Your task to perform on an android device: Go to Reddit.com Image 0: 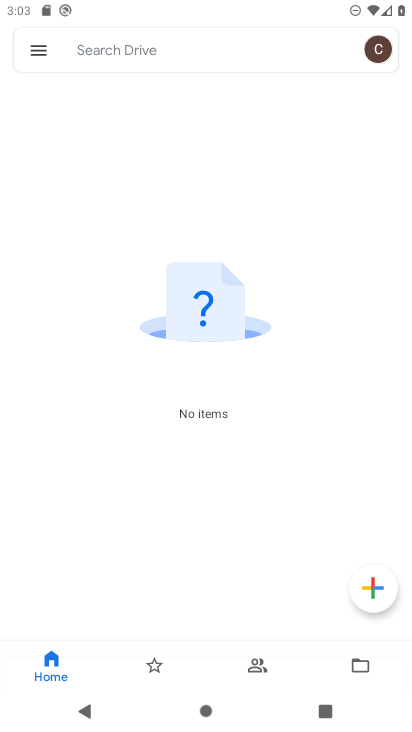
Step 0: press home button
Your task to perform on an android device: Go to Reddit.com Image 1: 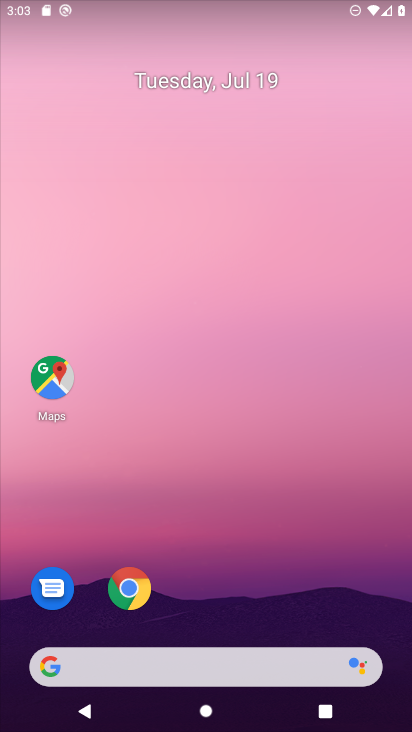
Step 1: click (130, 584)
Your task to perform on an android device: Go to Reddit.com Image 2: 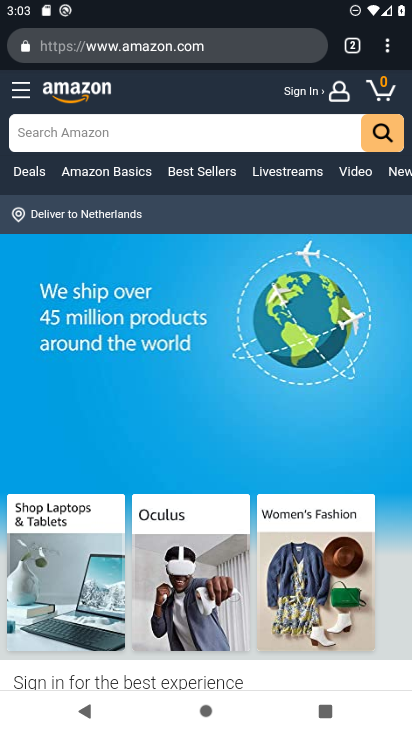
Step 2: click (162, 44)
Your task to perform on an android device: Go to Reddit.com Image 3: 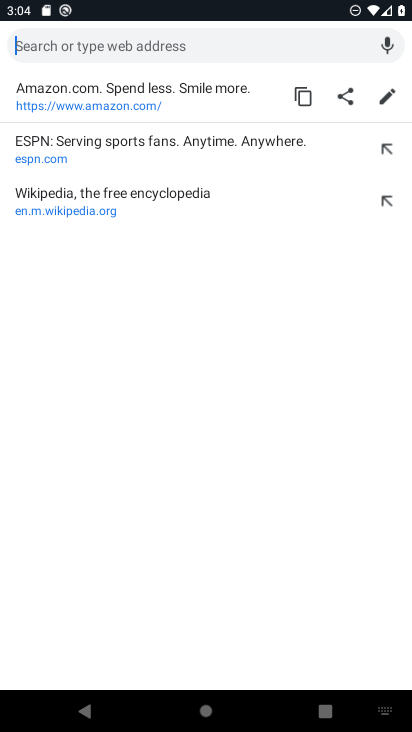
Step 3: type "www.reddit.com"
Your task to perform on an android device: Go to Reddit.com Image 4: 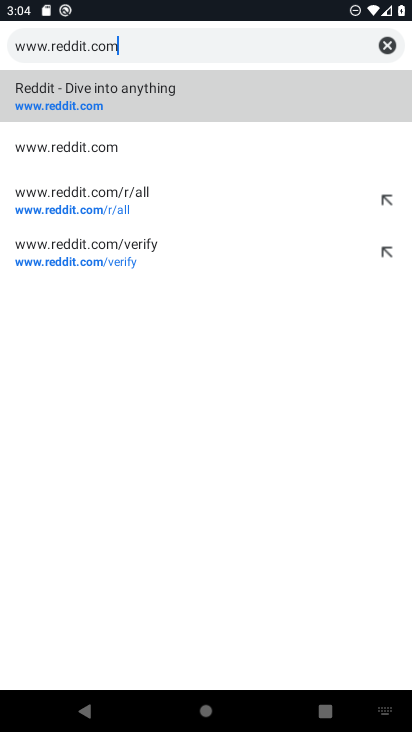
Step 4: click (35, 100)
Your task to perform on an android device: Go to Reddit.com Image 5: 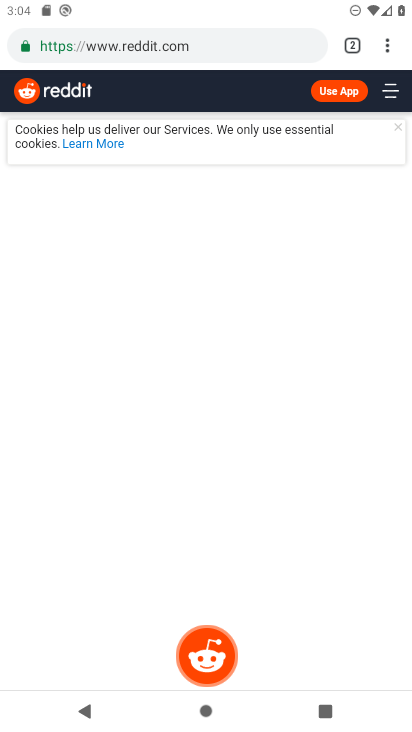
Step 5: task complete